Your task to perform on an android device: Search for pizza restaurants on Maps Image 0: 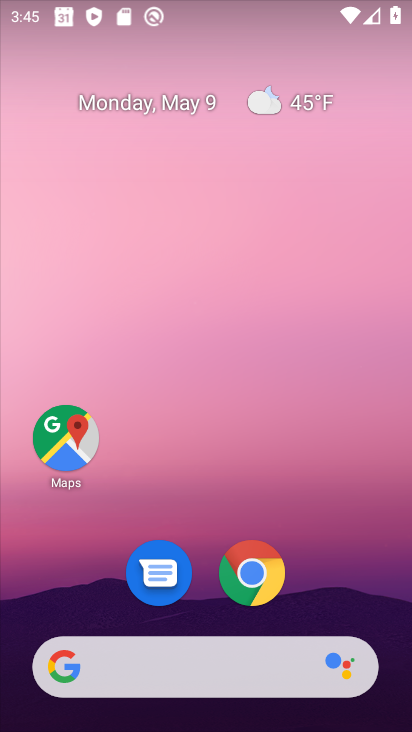
Step 0: click (52, 430)
Your task to perform on an android device: Search for pizza restaurants on Maps Image 1: 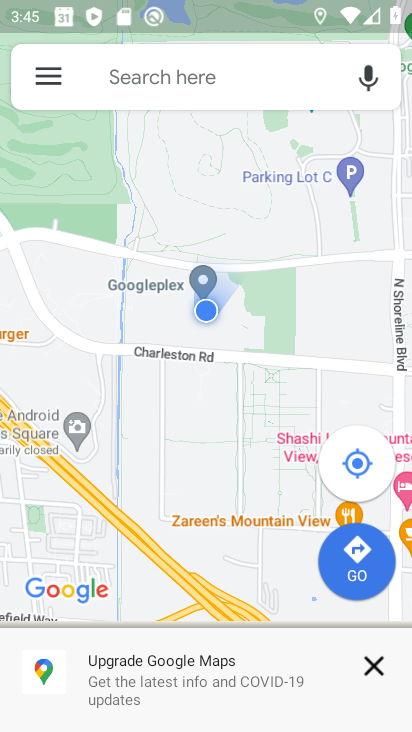
Step 1: click (126, 88)
Your task to perform on an android device: Search for pizza restaurants on Maps Image 2: 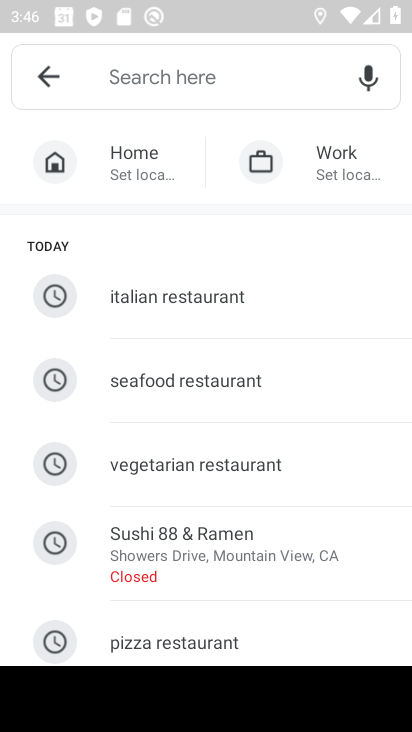
Step 2: type "pizza restaurant"
Your task to perform on an android device: Search for pizza restaurants on Maps Image 3: 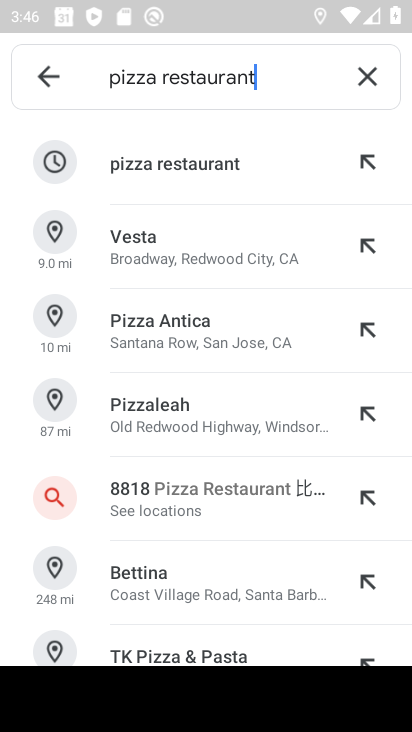
Step 3: click (168, 164)
Your task to perform on an android device: Search for pizza restaurants on Maps Image 4: 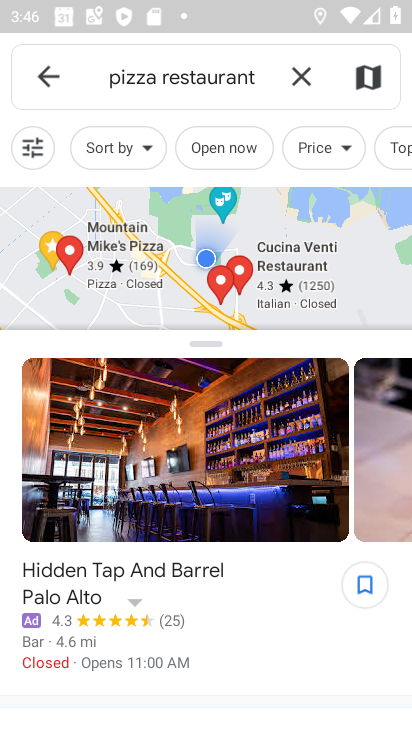
Step 4: task complete